Your task to perform on an android device: Open notification settings Image 0: 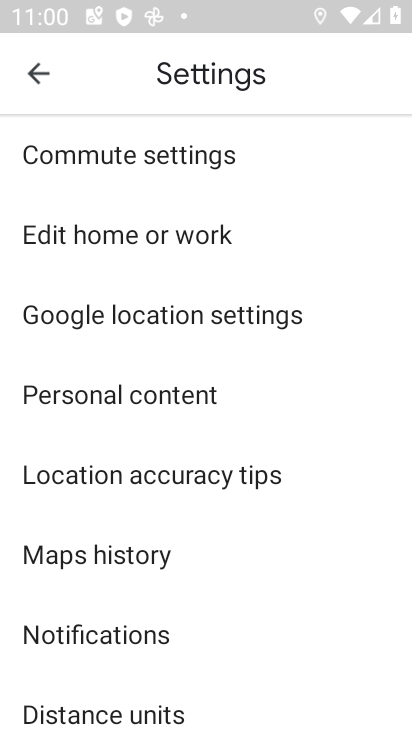
Step 0: click (39, 77)
Your task to perform on an android device: Open notification settings Image 1: 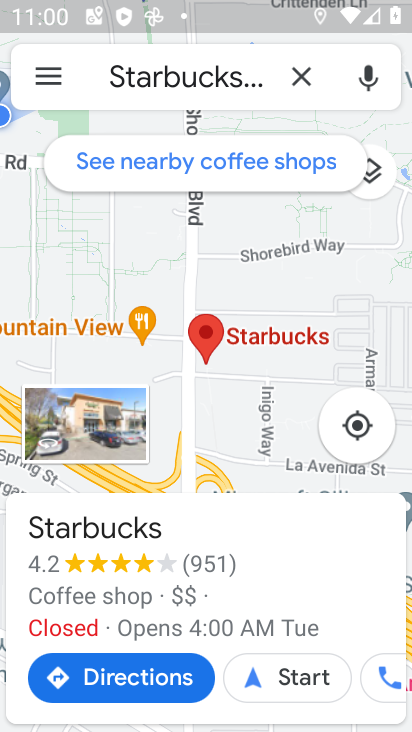
Step 1: press home button
Your task to perform on an android device: Open notification settings Image 2: 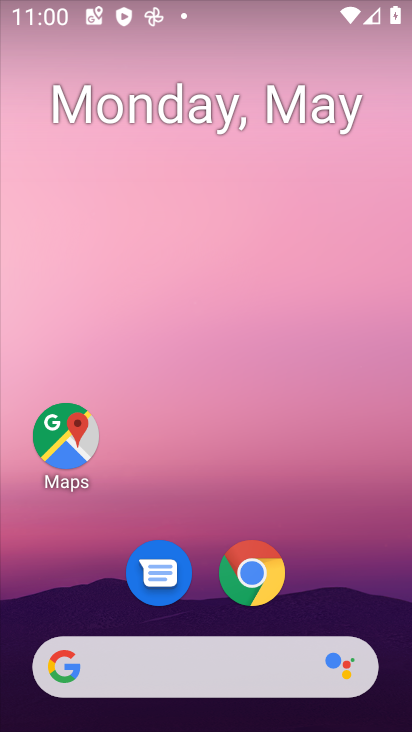
Step 2: drag from (335, 584) to (266, 120)
Your task to perform on an android device: Open notification settings Image 3: 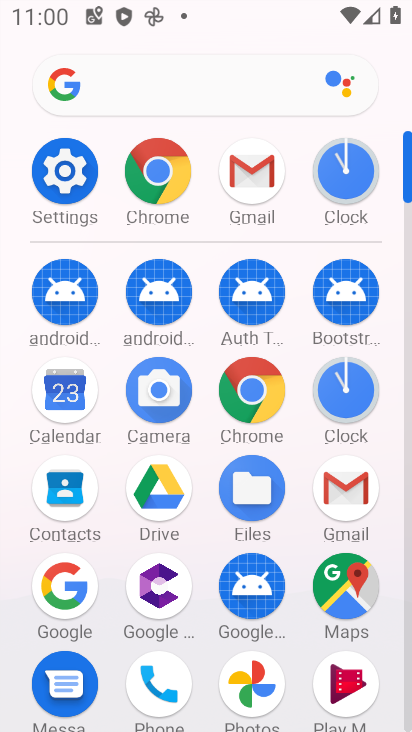
Step 3: click (67, 227)
Your task to perform on an android device: Open notification settings Image 4: 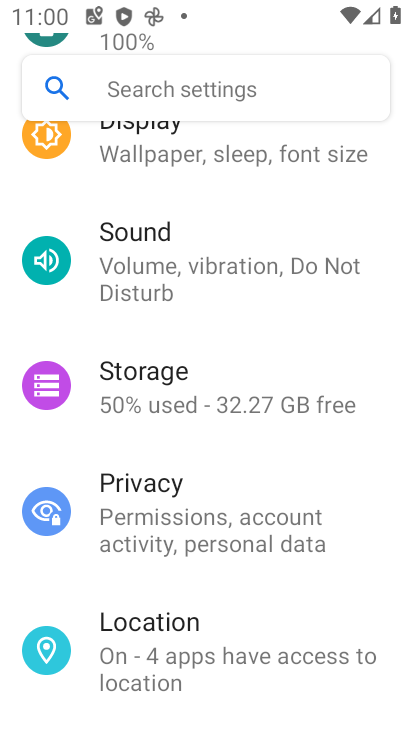
Step 4: drag from (156, 264) to (316, 633)
Your task to perform on an android device: Open notification settings Image 5: 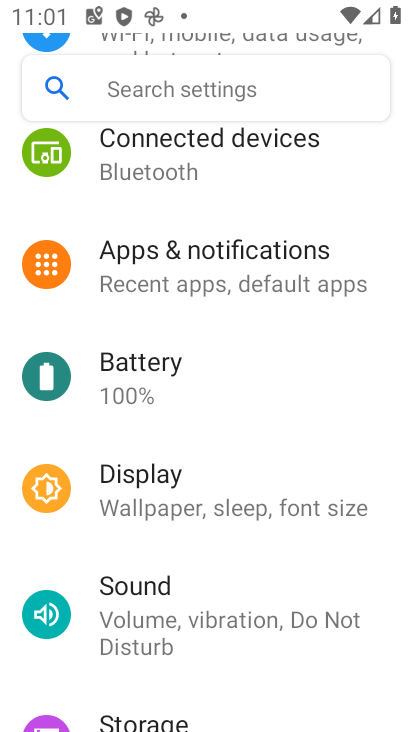
Step 5: click (255, 299)
Your task to perform on an android device: Open notification settings Image 6: 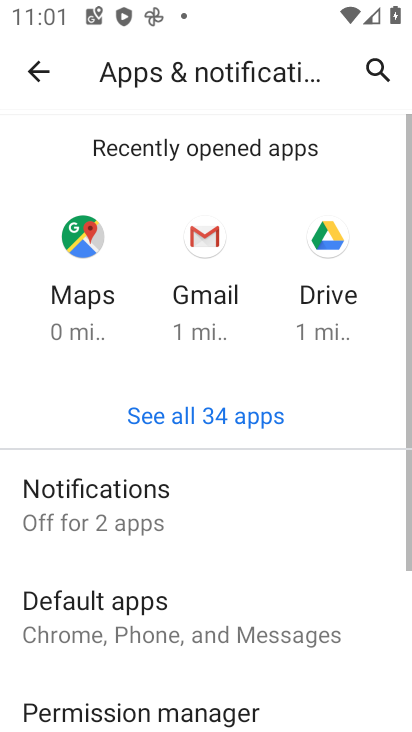
Step 6: task complete